Your task to perform on an android device: Go to sound settings Image 0: 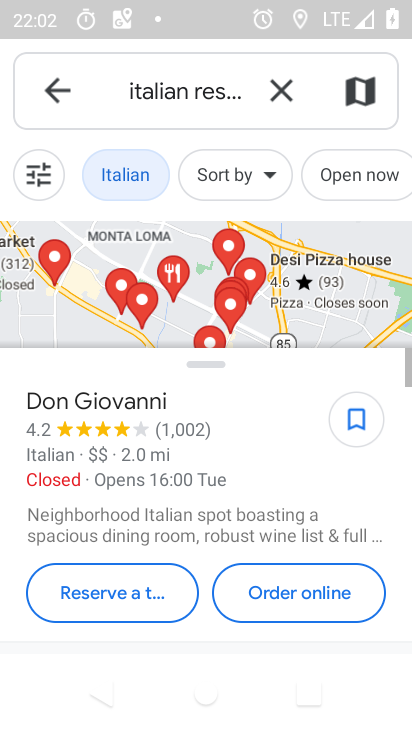
Step 0: drag from (207, 483) to (258, 172)
Your task to perform on an android device: Go to sound settings Image 1: 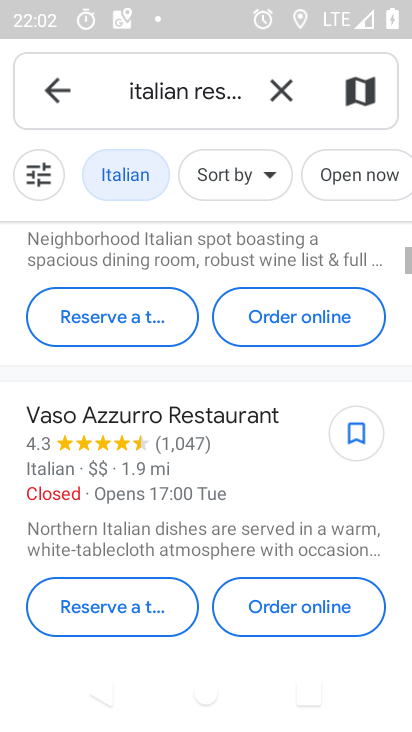
Step 1: press home button
Your task to perform on an android device: Go to sound settings Image 2: 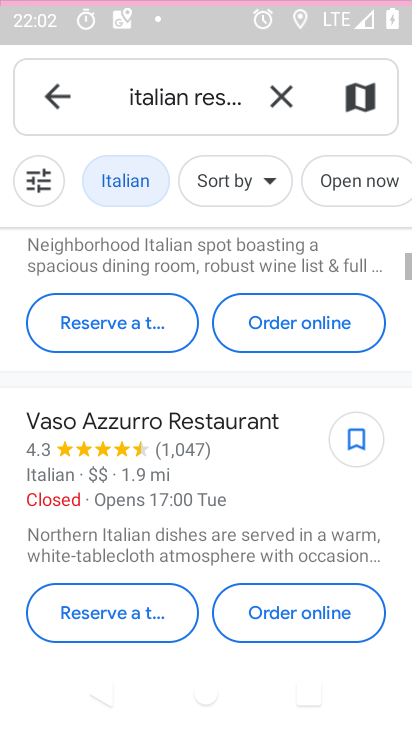
Step 2: drag from (265, 532) to (280, 104)
Your task to perform on an android device: Go to sound settings Image 3: 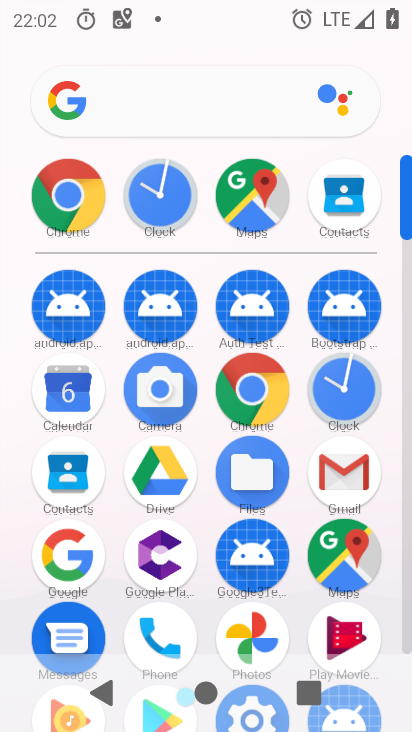
Step 3: drag from (203, 620) to (243, 190)
Your task to perform on an android device: Go to sound settings Image 4: 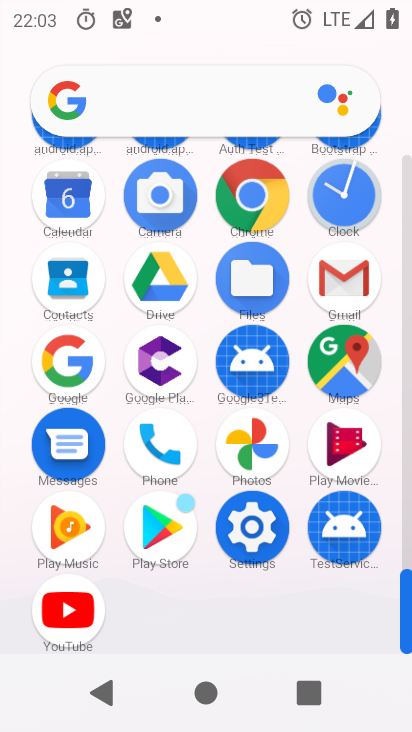
Step 4: click (266, 518)
Your task to perform on an android device: Go to sound settings Image 5: 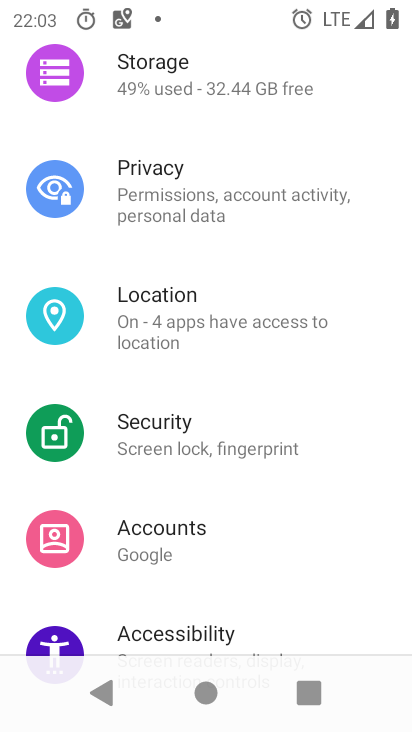
Step 5: drag from (176, 205) to (223, 730)
Your task to perform on an android device: Go to sound settings Image 6: 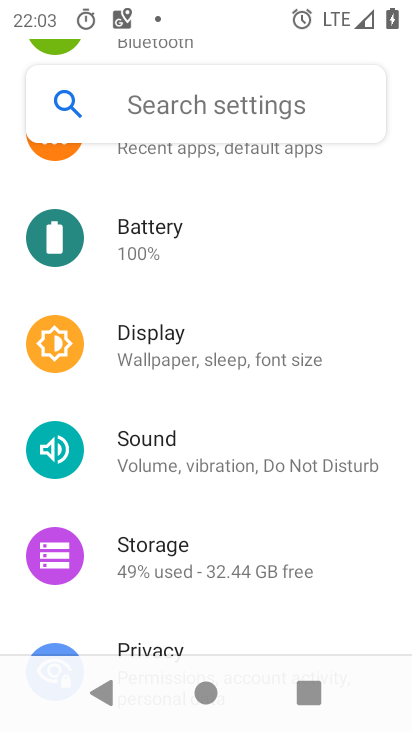
Step 6: click (175, 473)
Your task to perform on an android device: Go to sound settings Image 7: 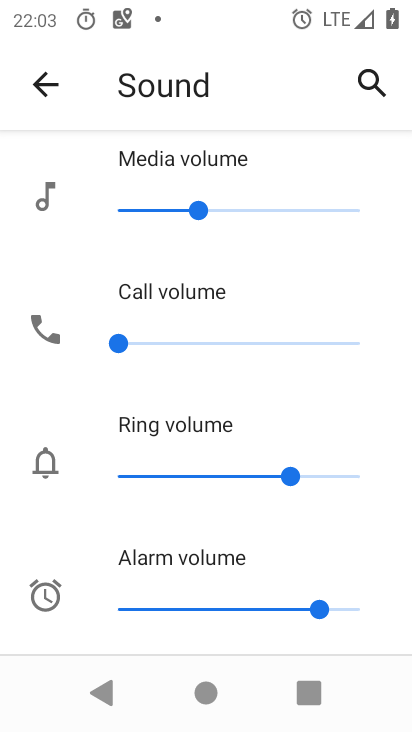
Step 7: task complete